Your task to perform on an android device: open chrome privacy settings Image 0: 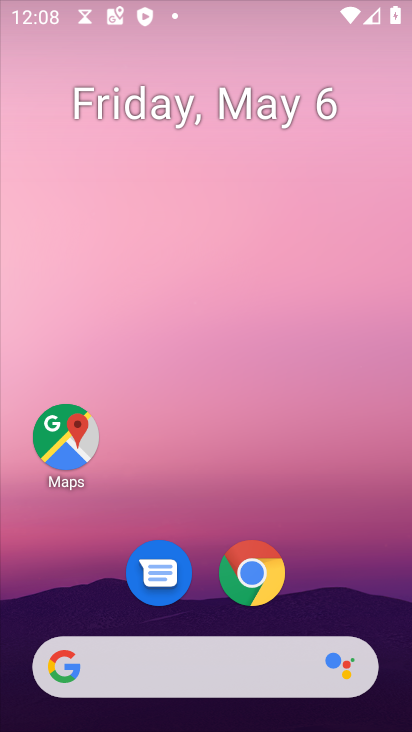
Step 0: drag from (329, 606) to (323, 278)
Your task to perform on an android device: open chrome privacy settings Image 1: 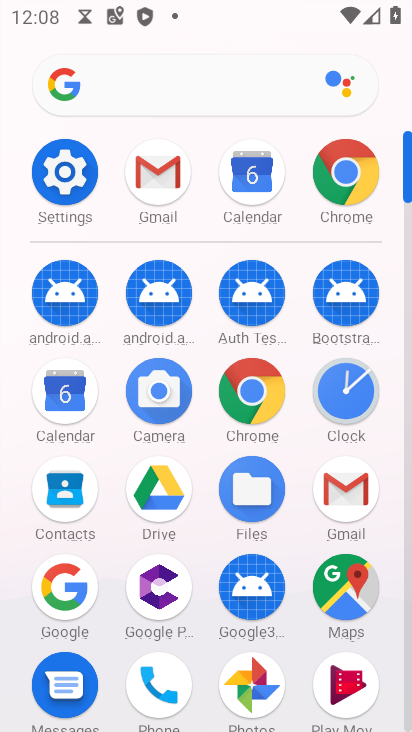
Step 1: click (56, 162)
Your task to perform on an android device: open chrome privacy settings Image 2: 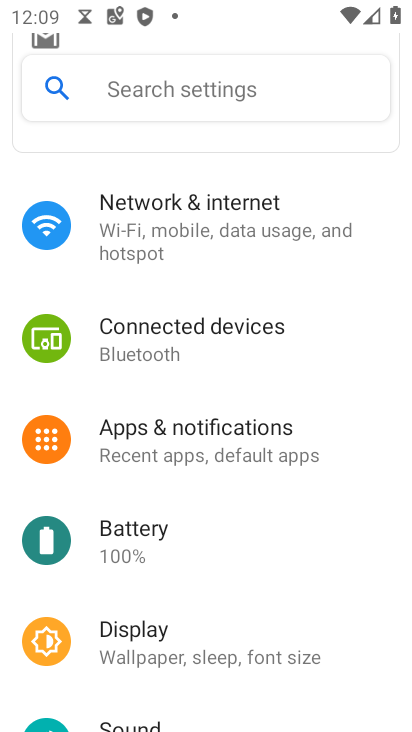
Step 2: press home button
Your task to perform on an android device: open chrome privacy settings Image 3: 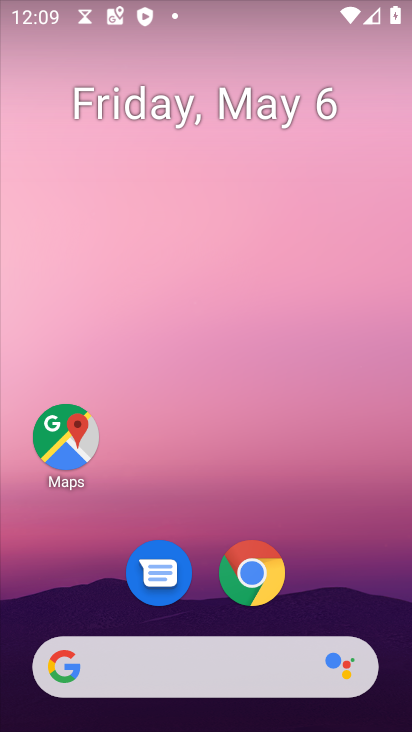
Step 3: drag from (314, 593) to (327, 276)
Your task to perform on an android device: open chrome privacy settings Image 4: 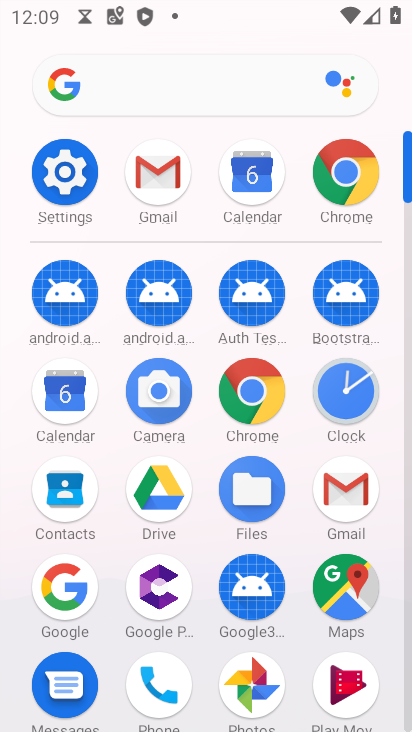
Step 4: click (242, 401)
Your task to perform on an android device: open chrome privacy settings Image 5: 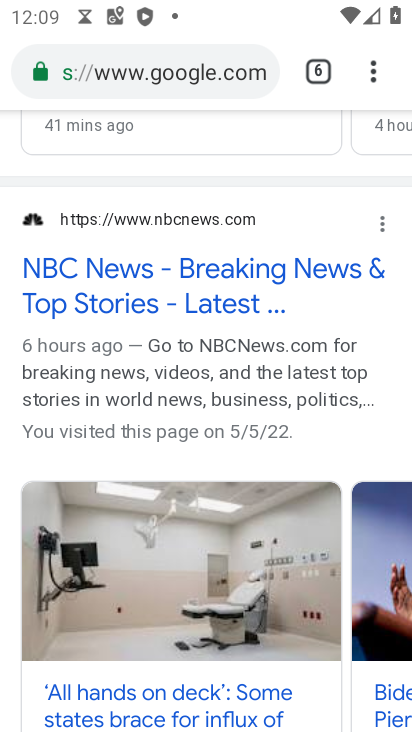
Step 5: click (362, 70)
Your task to perform on an android device: open chrome privacy settings Image 6: 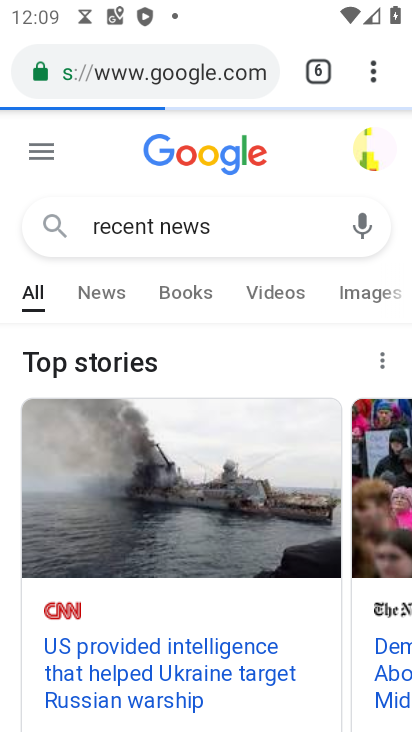
Step 6: click (362, 70)
Your task to perform on an android device: open chrome privacy settings Image 7: 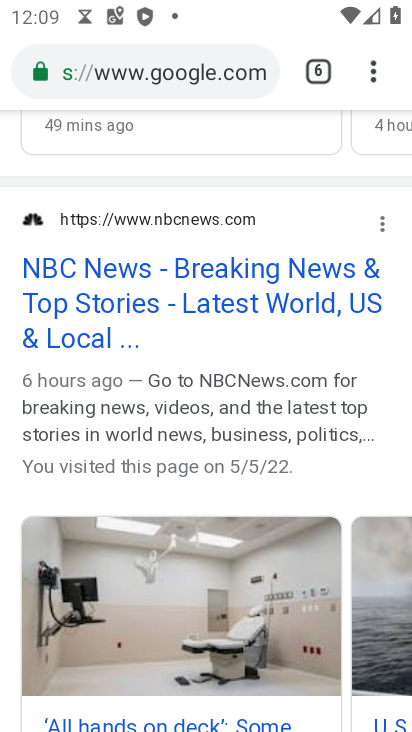
Step 7: click (353, 72)
Your task to perform on an android device: open chrome privacy settings Image 8: 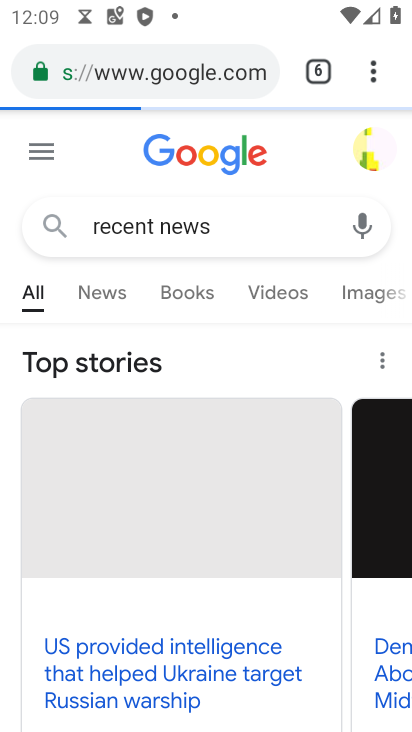
Step 8: click (353, 72)
Your task to perform on an android device: open chrome privacy settings Image 9: 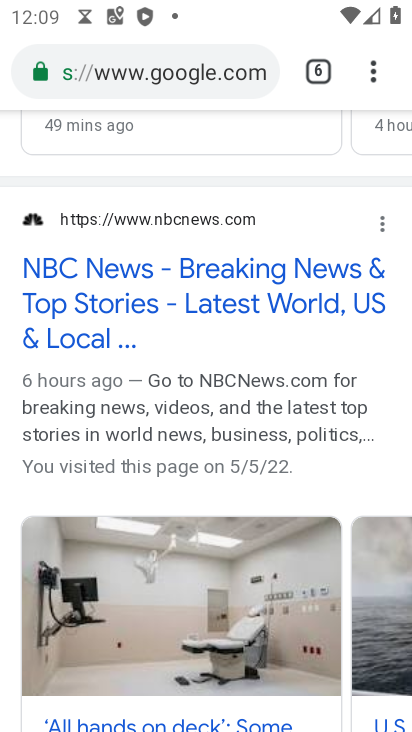
Step 9: click (344, 73)
Your task to perform on an android device: open chrome privacy settings Image 10: 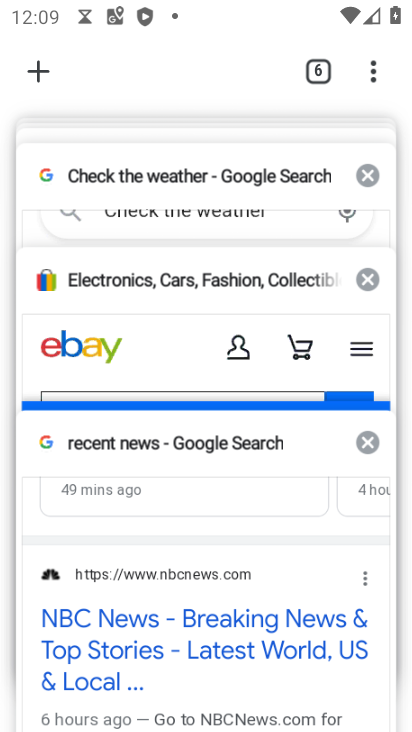
Step 10: click (302, 493)
Your task to perform on an android device: open chrome privacy settings Image 11: 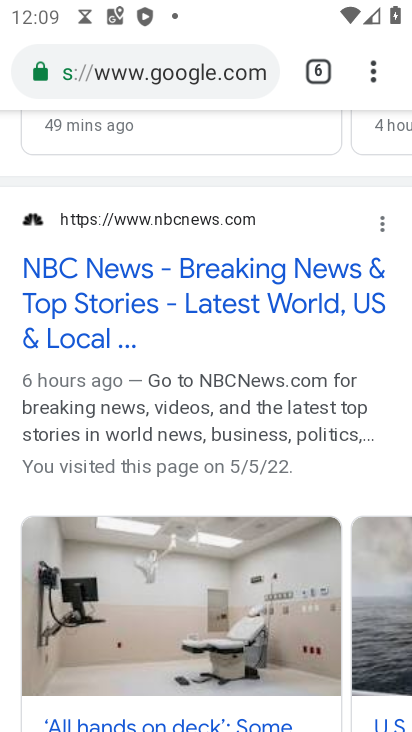
Step 11: click (362, 72)
Your task to perform on an android device: open chrome privacy settings Image 12: 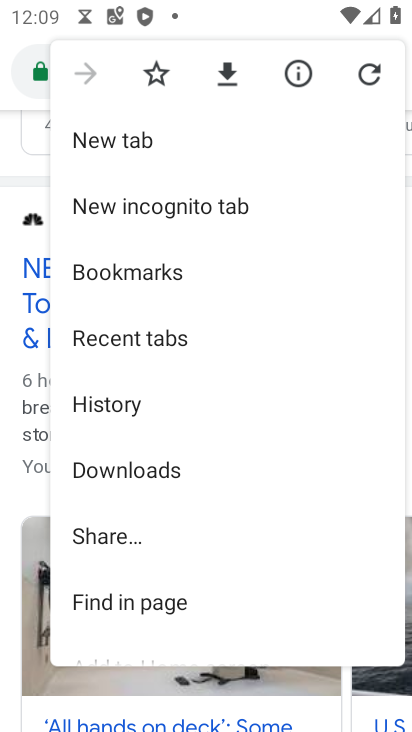
Step 12: drag from (276, 604) to (304, 260)
Your task to perform on an android device: open chrome privacy settings Image 13: 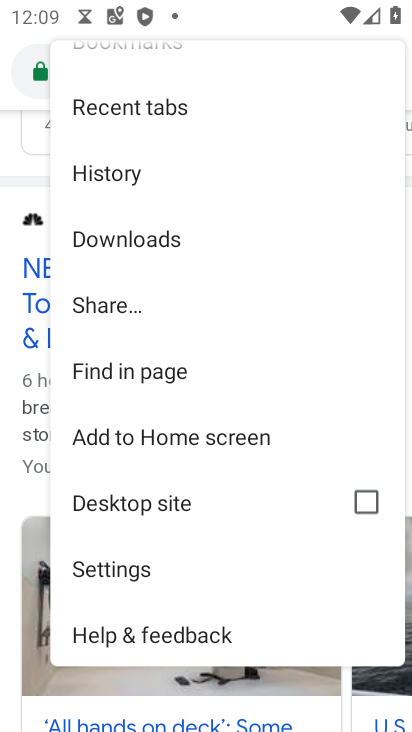
Step 13: click (149, 565)
Your task to perform on an android device: open chrome privacy settings Image 14: 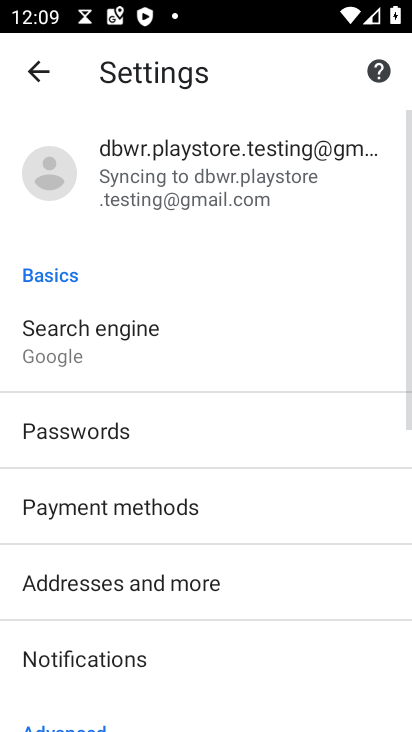
Step 14: drag from (162, 645) to (233, 338)
Your task to perform on an android device: open chrome privacy settings Image 15: 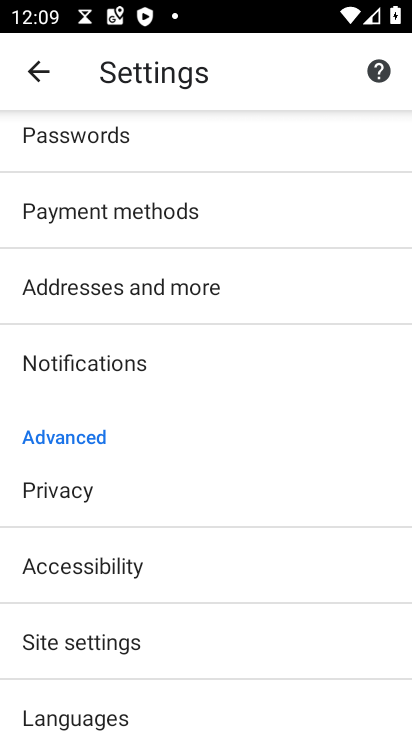
Step 15: click (89, 482)
Your task to perform on an android device: open chrome privacy settings Image 16: 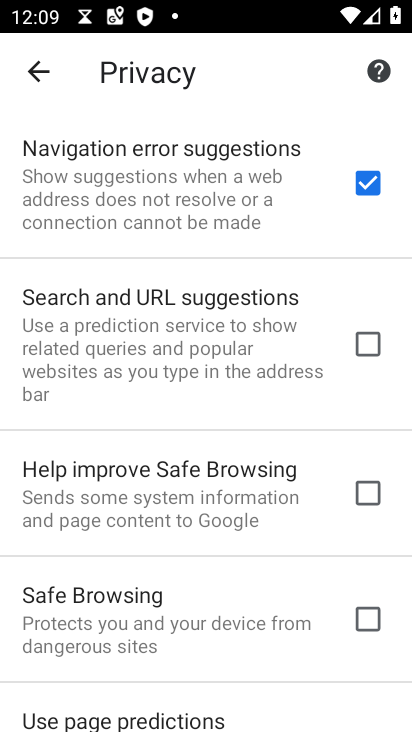
Step 16: task complete